Your task to perform on an android device: visit the assistant section in the google photos Image 0: 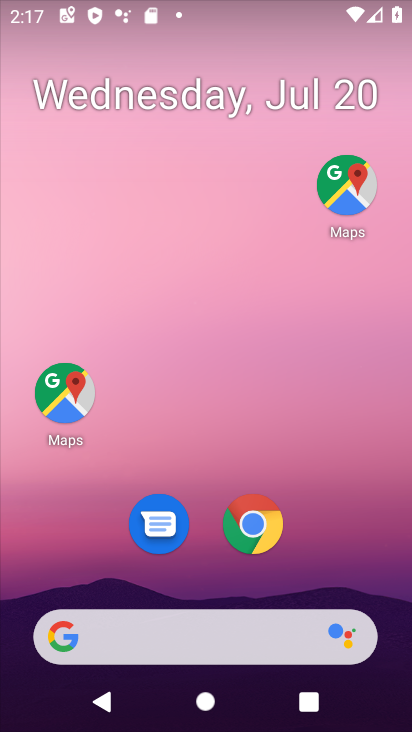
Step 0: drag from (304, 564) to (240, 59)
Your task to perform on an android device: visit the assistant section in the google photos Image 1: 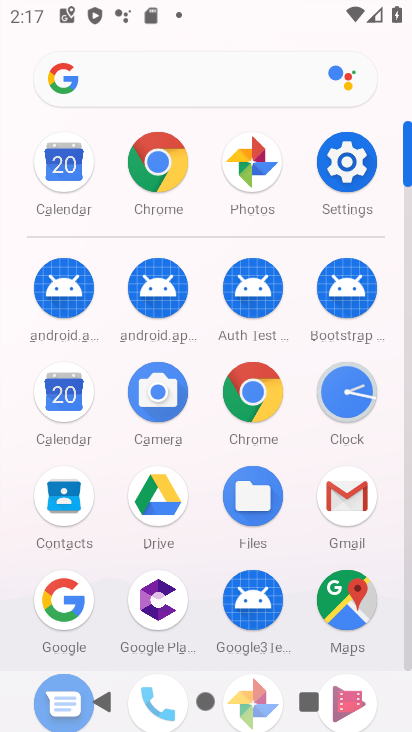
Step 1: click (248, 169)
Your task to perform on an android device: visit the assistant section in the google photos Image 2: 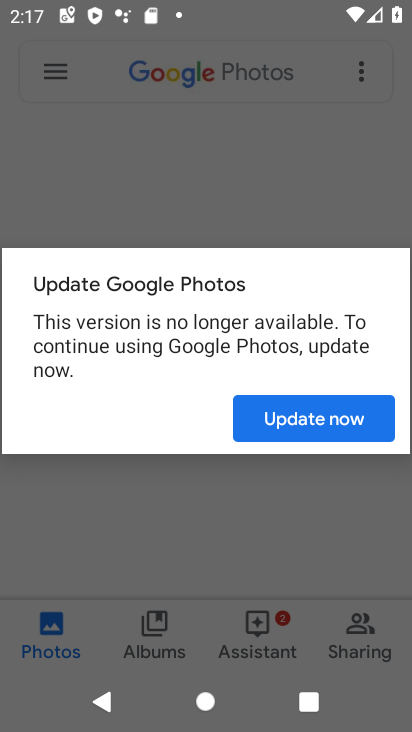
Step 2: click (325, 431)
Your task to perform on an android device: visit the assistant section in the google photos Image 3: 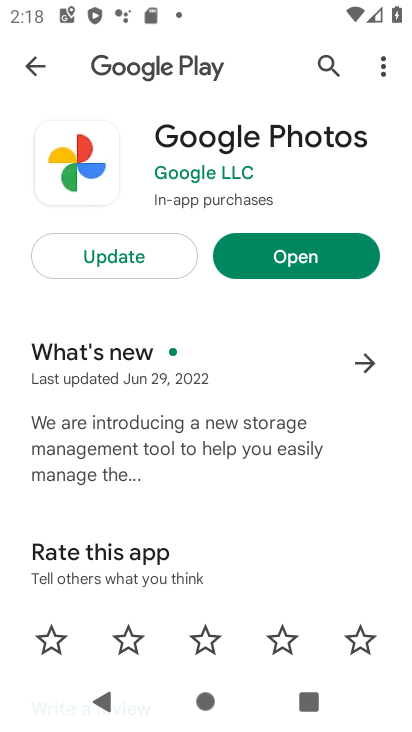
Step 3: click (342, 246)
Your task to perform on an android device: visit the assistant section in the google photos Image 4: 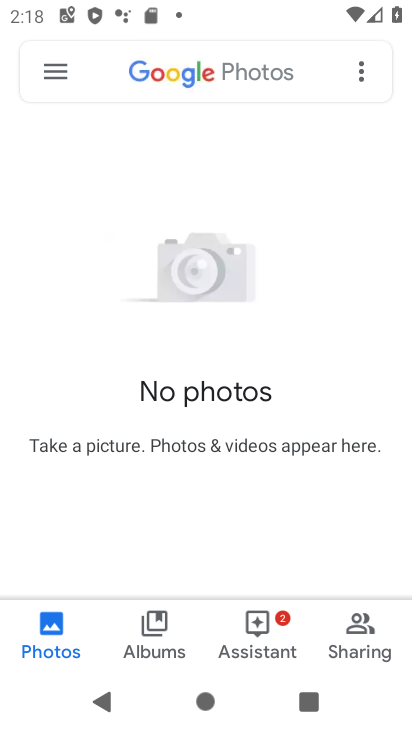
Step 4: click (255, 644)
Your task to perform on an android device: visit the assistant section in the google photos Image 5: 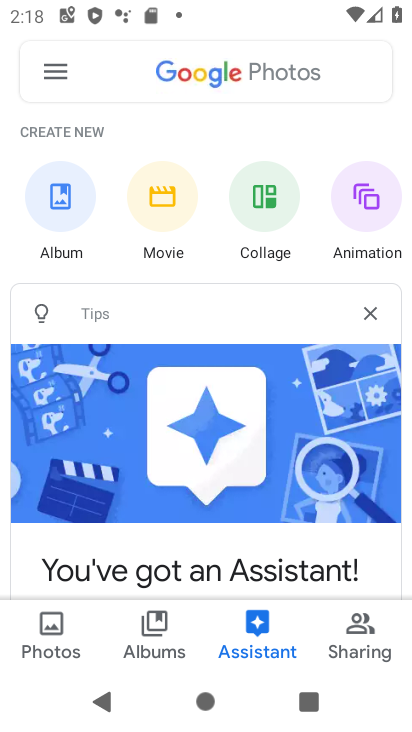
Step 5: task complete